Your task to perform on an android device: Open notification settings Image 0: 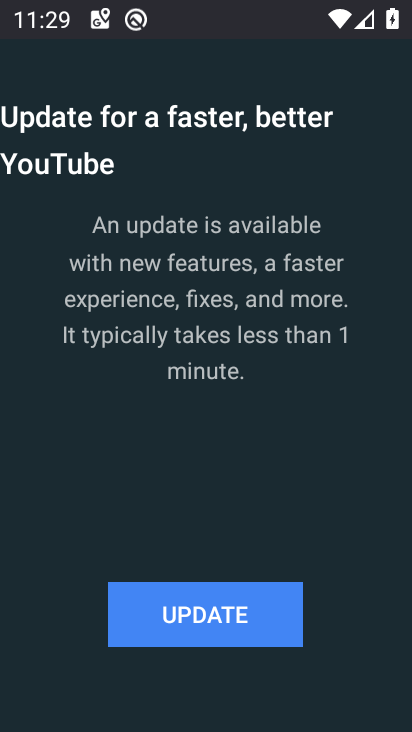
Step 0: press home button
Your task to perform on an android device: Open notification settings Image 1: 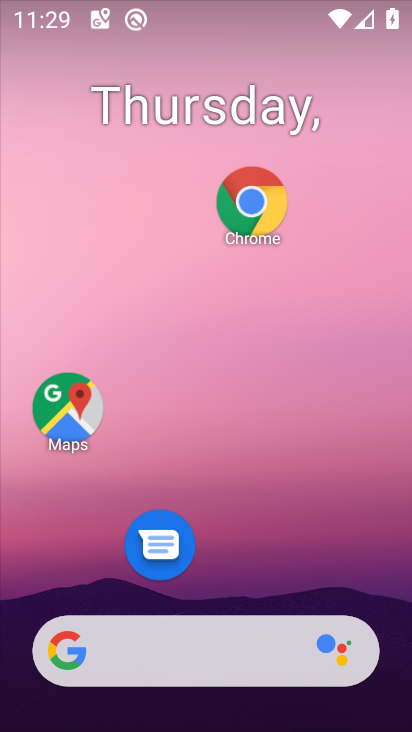
Step 1: drag from (304, 555) to (297, 213)
Your task to perform on an android device: Open notification settings Image 2: 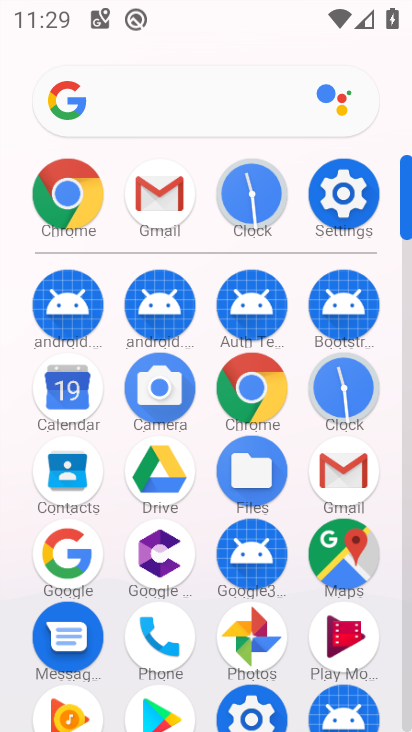
Step 2: click (332, 185)
Your task to perform on an android device: Open notification settings Image 3: 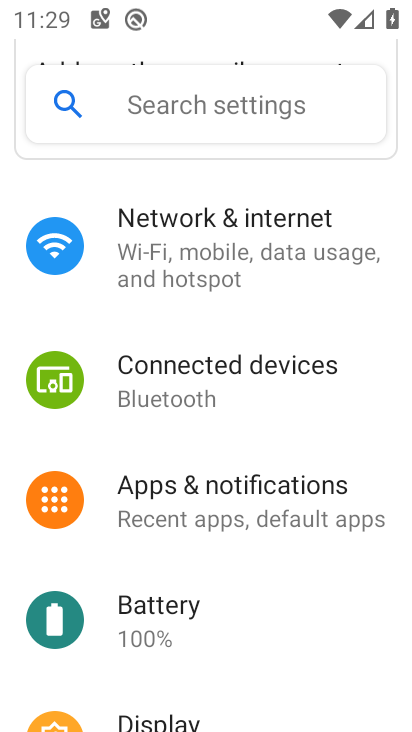
Step 3: click (196, 370)
Your task to perform on an android device: Open notification settings Image 4: 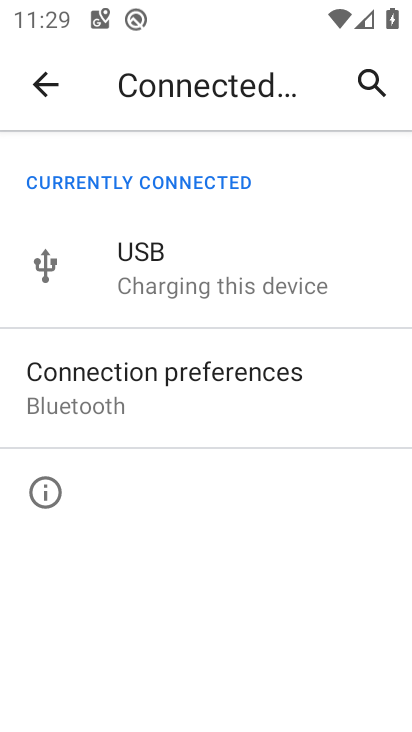
Step 4: click (47, 80)
Your task to perform on an android device: Open notification settings Image 5: 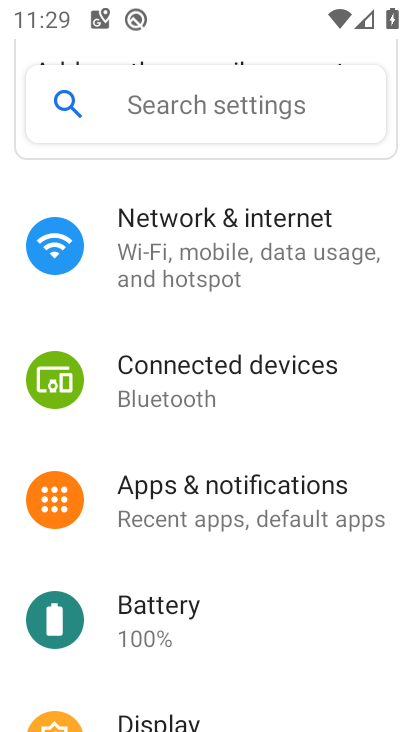
Step 5: click (183, 523)
Your task to perform on an android device: Open notification settings Image 6: 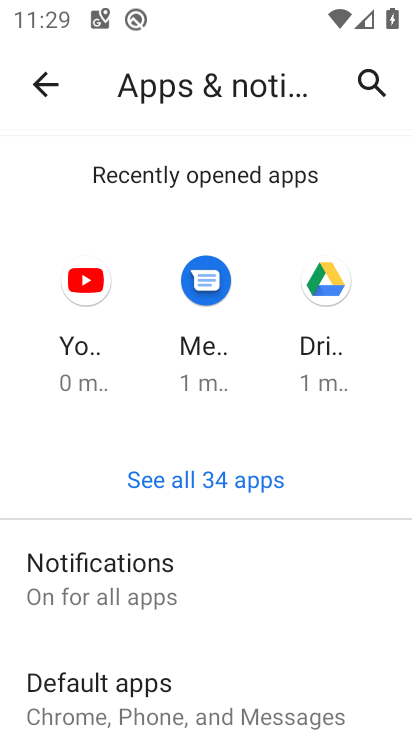
Step 6: click (115, 584)
Your task to perform on an android device: Open notification settings Image 7: 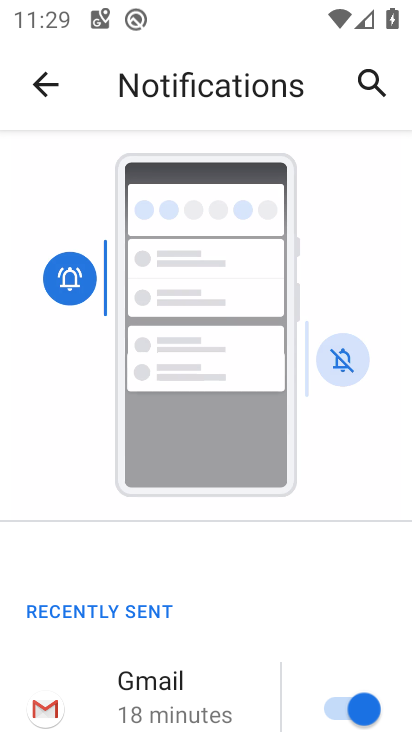
Step 7: task complete